Your task to perform on an android device: Search for vegetarian restaurants on Maps Image 0: 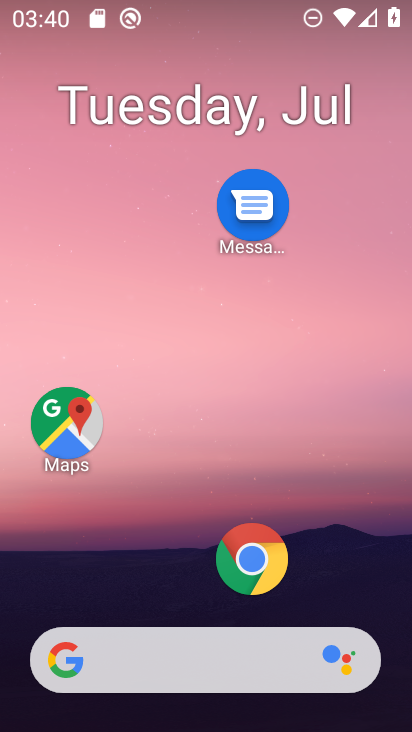
Step 0: click (58, 415)
Your task to perform on an android device: Search for vegetarian restaurants on Maps Image 1: 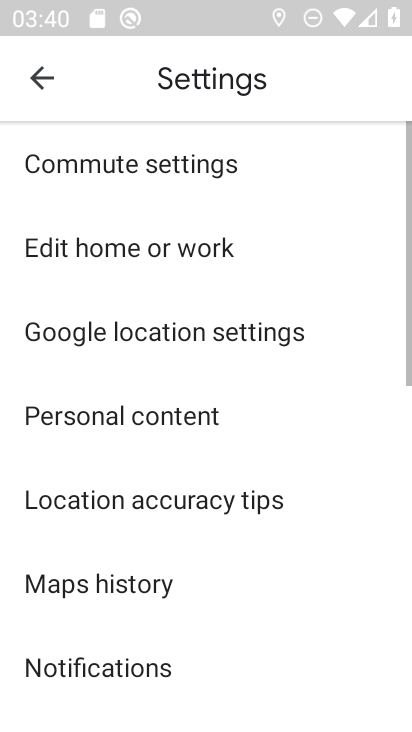
Step 1: click (40, 65)
Your task to perform on an android device: Search for vegetarian restaurants on Maps Image 2: 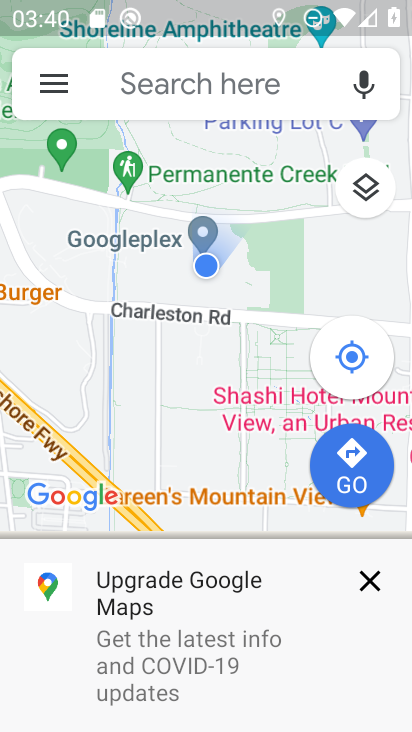
Step 2: click (224, 114)
Your task to perform on an android device: Search for vegetarian restaurants on Maps Image 3: 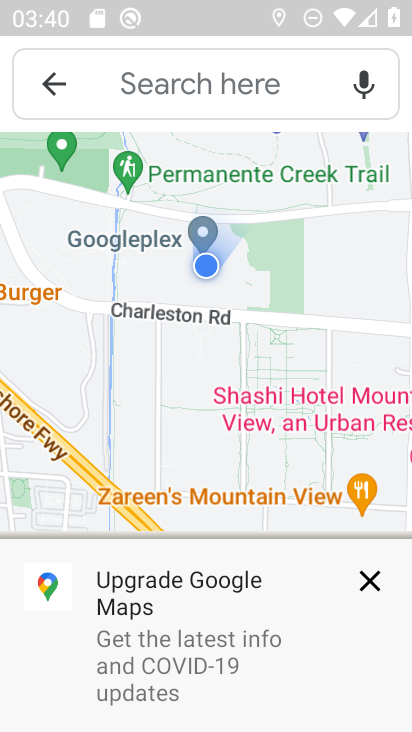
Step 3: click (208, 94)
Your task to perform on an android device: Search for vegetarian restaurants on Maps Image 4: 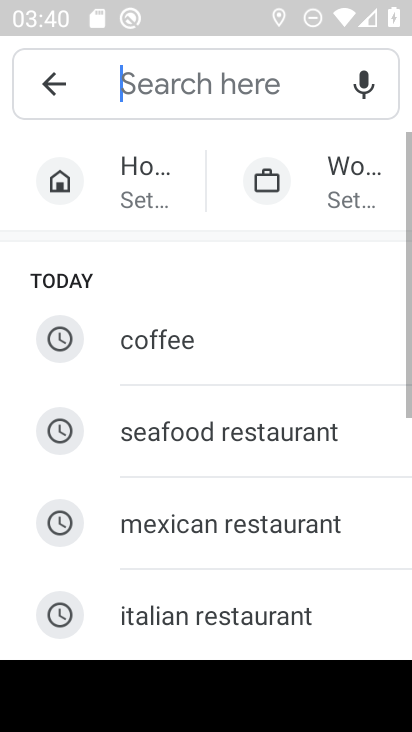
Step 4: drag from (184, 627) to (305, 204)
Your task to perform on an android device: Search for vegetarian restaurants on Maps Image 5: 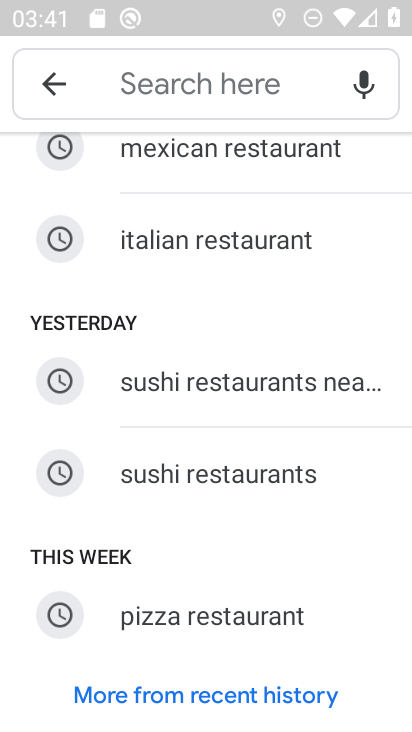
Step 5: click (174, 101)
Your task to perform on an android device: Search for vegetarian restaurants on Maps Image 6: 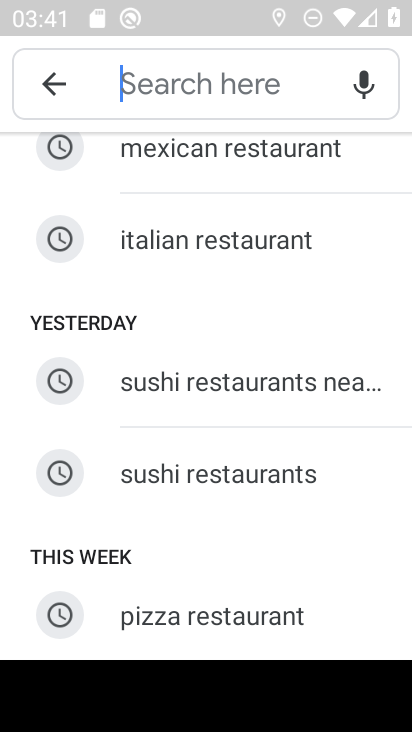
Step 6: type "vegetarian restaurants"
Your task to perform on an android device: Search for vegetarian restaurants on Maps Image 7: 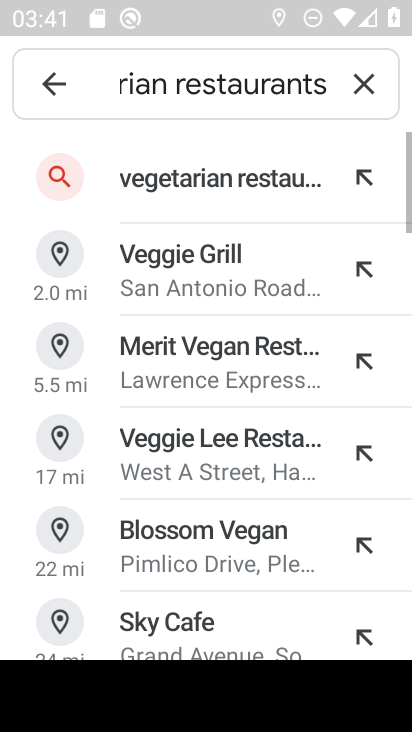
Step 7: click (203, 190)
Your task to perform on an android device: Search for vegetarian restaurants on Maps Image 8: 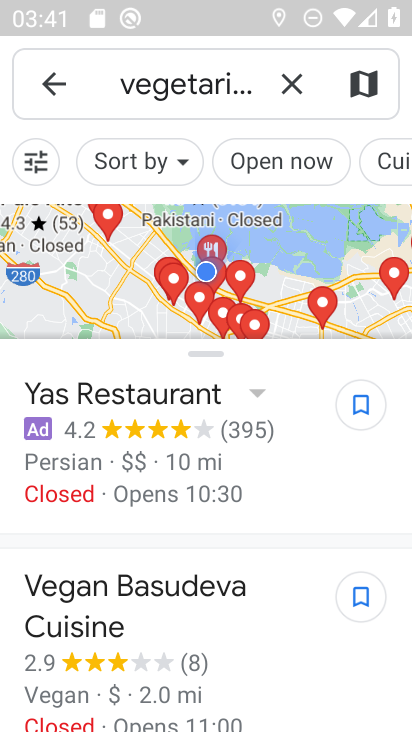
Step 8: task complete